Your task to perform on an android device: Open sound settings Image 0: 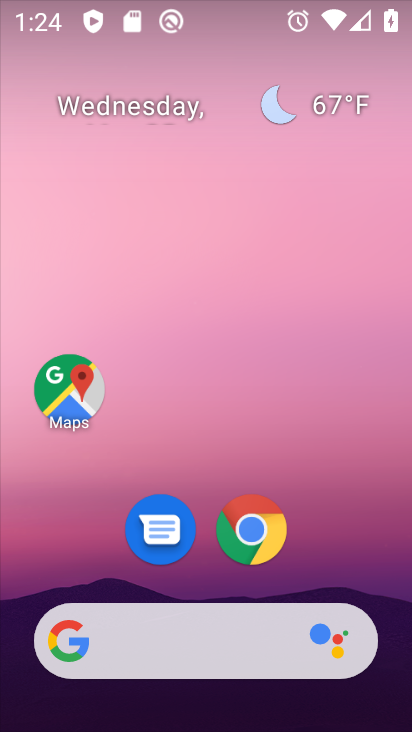
Step 0: drag from (331, 542) to (248, 200)
Your task to perform on an android device: Open sound settings Image 1: 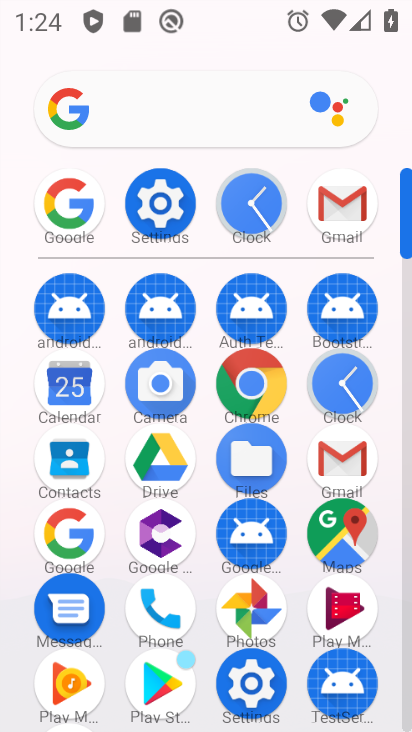
Step 1: click (159, 204)
Your task to perform on an android device: Open sound settings Image 2: 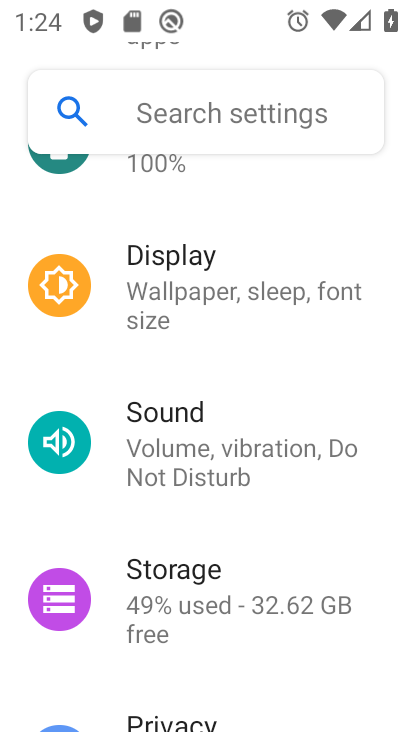
Step 2: click (180, 412)
Your task to perform on an android device: Open sound settings Image 3: 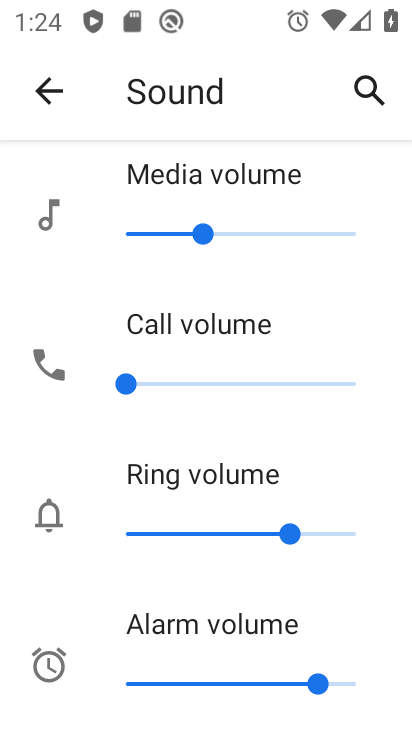
Step 3: task complete